Your task to perform on an android device: change text size in settings app Image 0: 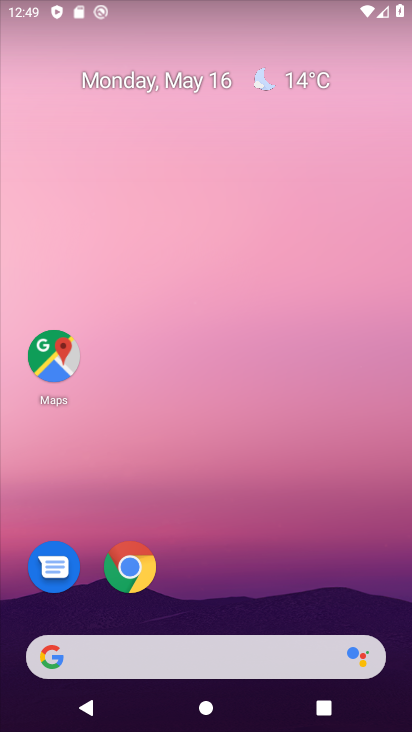
Step 0: drag from (222, 520) to (319, 25)
Your task to perform on an android device: change text size in settings app Image 1: 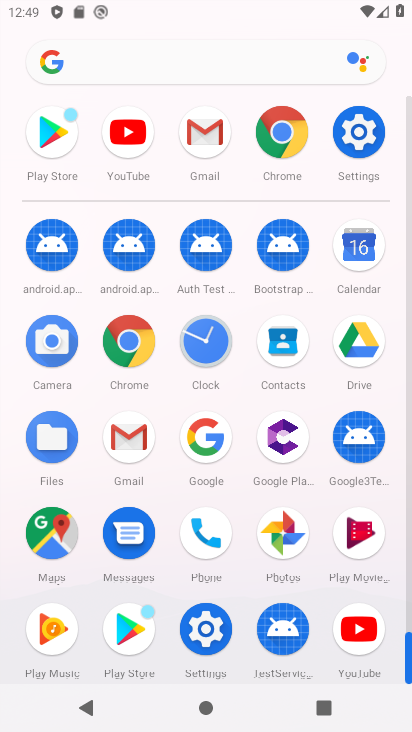
Step 1: click (358, 130)
Your task to perform on an android device: change text size in settings app Image 2: 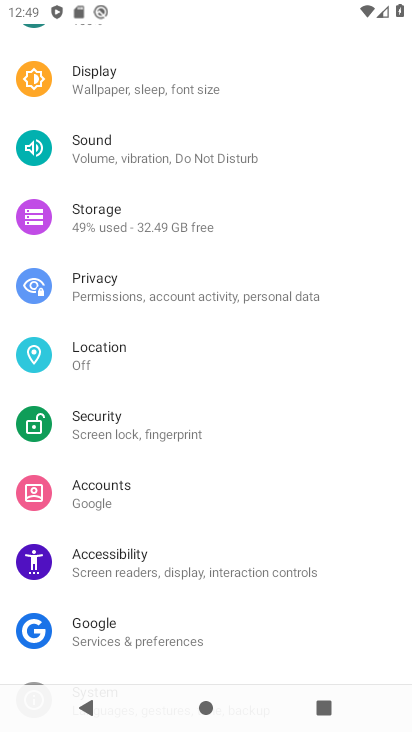
Step 2: click (95, 70)
Your task to perform on an android device: change text size in settings app Image 3: 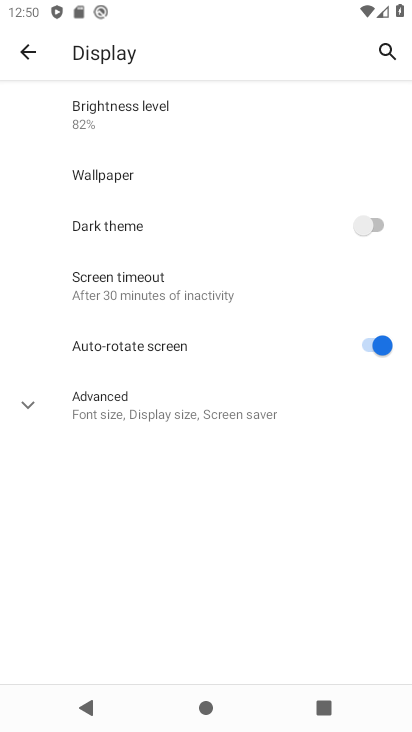
Step 3: click (119, 413)
Your task to perform on an android device: change text size in settings app Image 4: 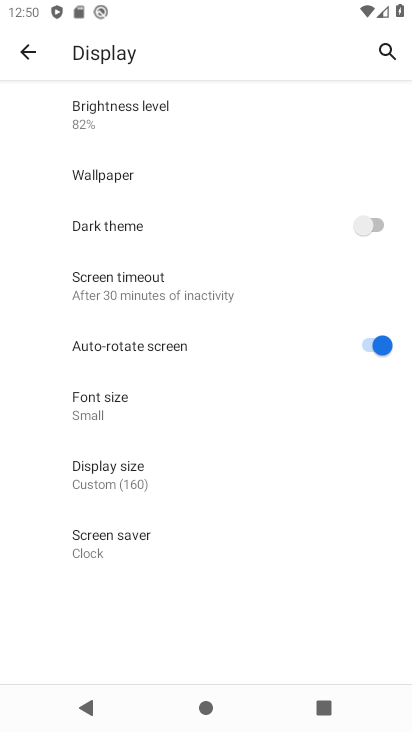
Step 4: click (101, 396)
Your task to perform on an android device: change text size in settings app Image 5: 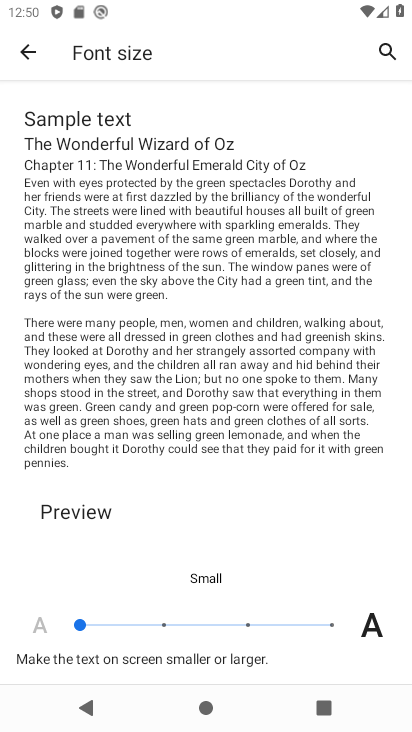
Step 5: click (165, 623)
Your task to perform on an android device: change text size in settings app Image 6: 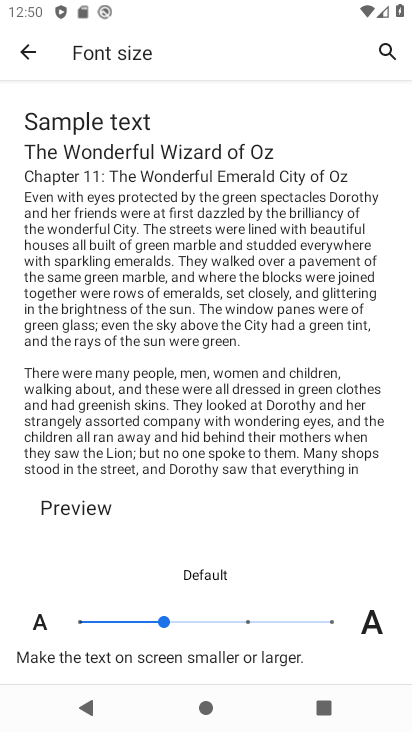
Step 6: task complete